Your task to perform on an android device: turn off location history Image 0: 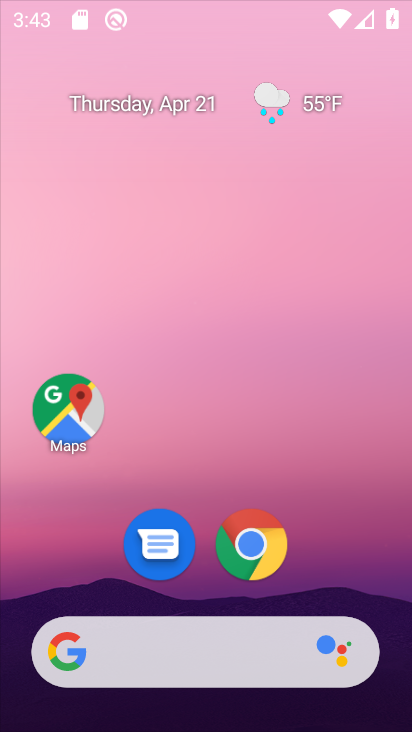
Step 0: drag from (211, 586) to (221, 100)
Your task to perform on an android device: turn off location history Image 1: 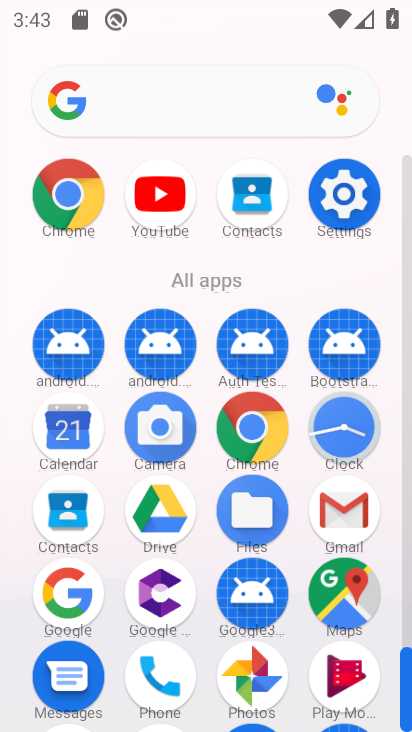
Step 1: click (324, 219)
Your task to perform on an android device: turn off location history Image 2: 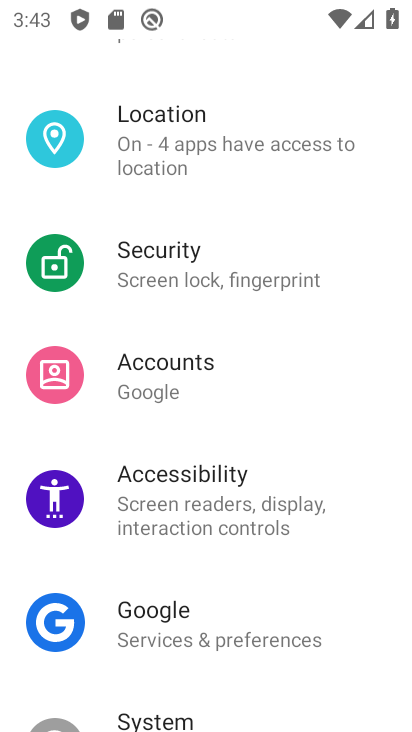
Step 2: drag from (242, 555) to (224, 39)
Your task to perform on an android device: turn off location history Image 3: 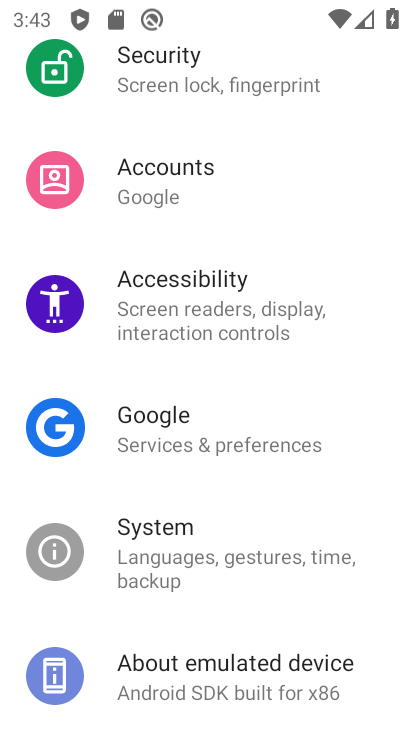
Step 3: drag from (201, 191) to (206, 600)
Your task to perform on an android device: turn off location history Image 4: 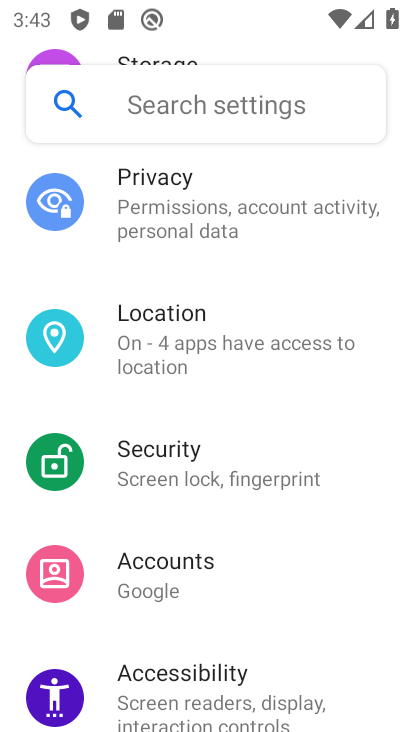
Step 4: click (179, 353)
Your task to perform on an android device: turn off location history Image 5: 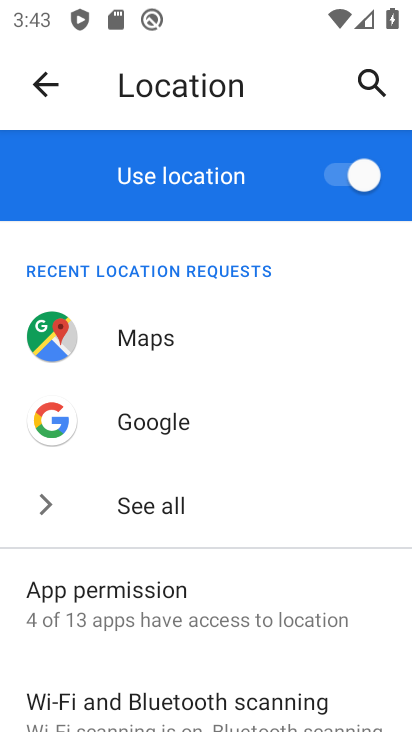
Step 5: drag from (166, 628) to (178, 204)
Your task to perform on an android device: turn off location history Image 6: 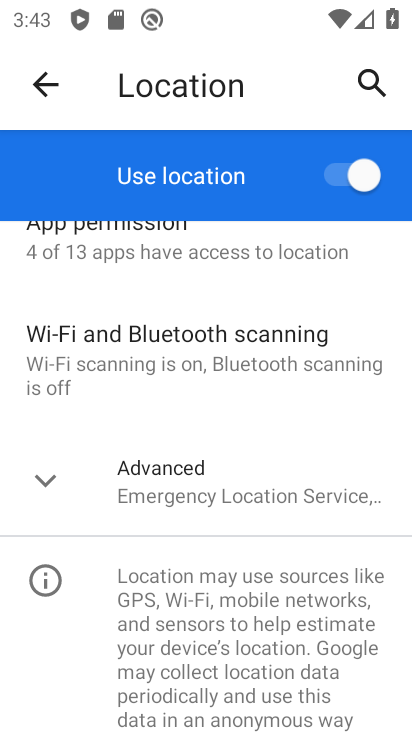
Step 6: click (152, 475)
Your task to perform on an android device: turn off location history Image 7: 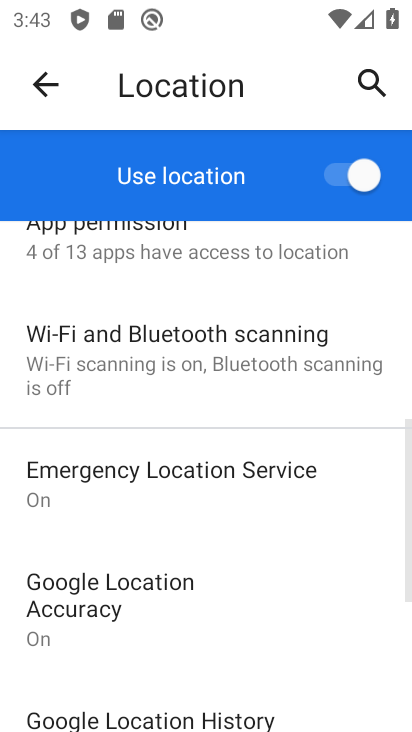
Step 7: drag from (223, 578) to (204, 350)
Your task to perform on an android device: turn off location history Image 8: 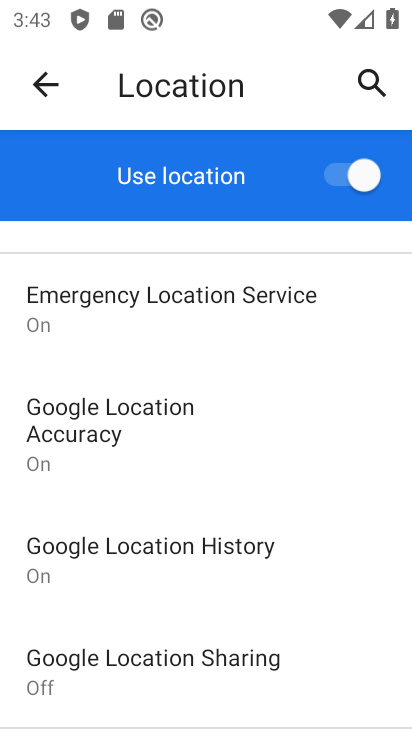
Step 8: click (166, 543)
Your task to perform on an android device: turn off location history Image 9: 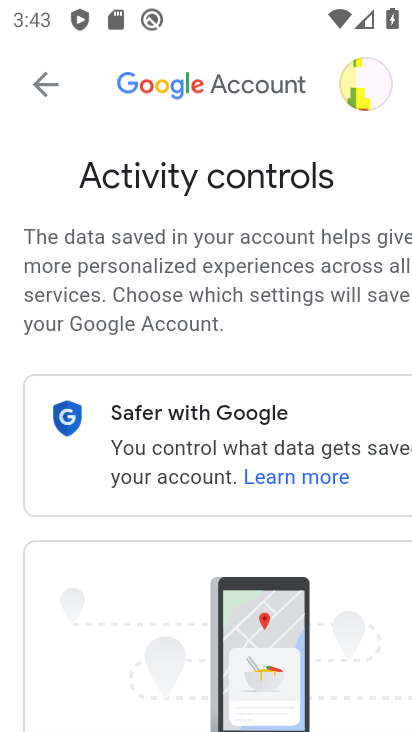
Step 9: drag from (179, 523) to (153, 223)
Your task to perform on an android device: turn off location history Image 10: 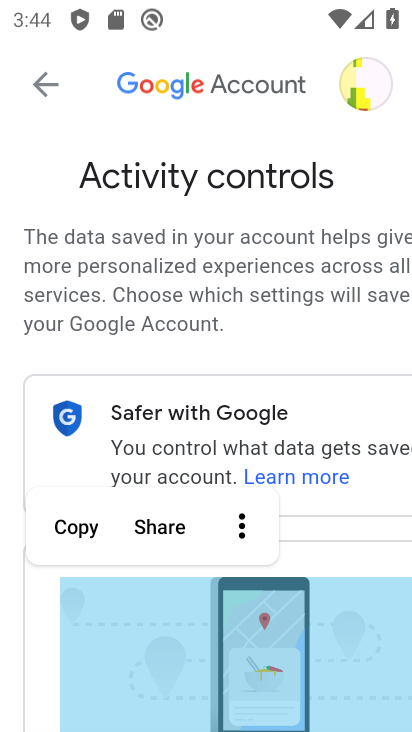
Step 10: drag from (332, 542) to (262, 46)
Your task to perform on an android device: turn off location history Image 11: 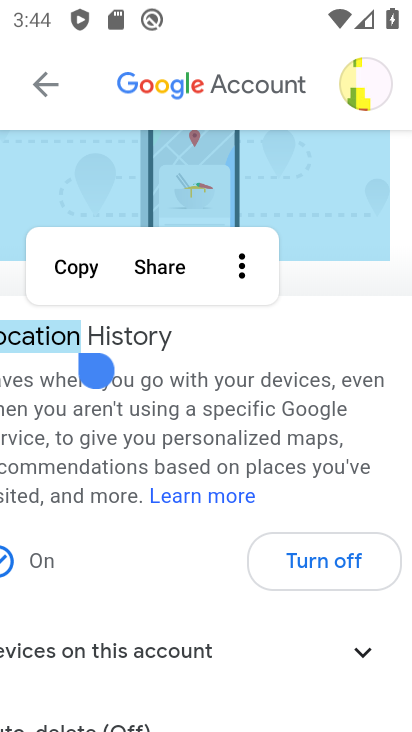
Step 11: click (329, 562)
Your task to perform on an android device: turn off location history Image 12: 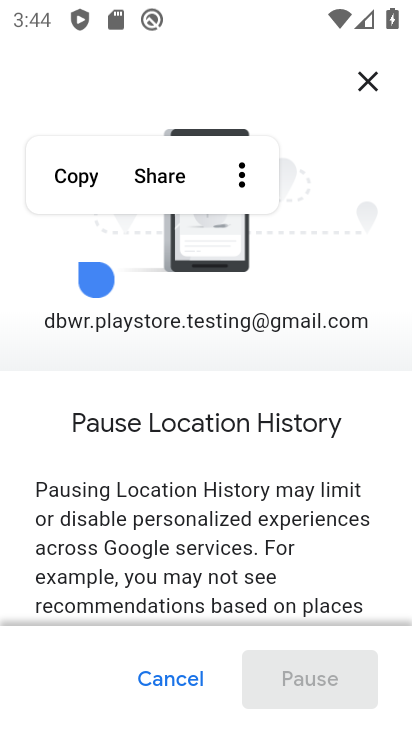
Step 12: drag from (320, 554) to (298, 49)
Your task to perform on an android device: turn off location history Image 13: 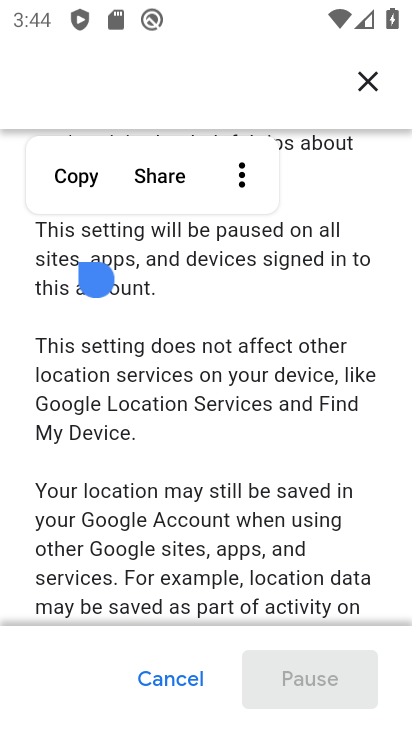
Step 13: drag from (282, 456) to (258, 54)
Your task to perform on an android device: turn off location history Image 14: 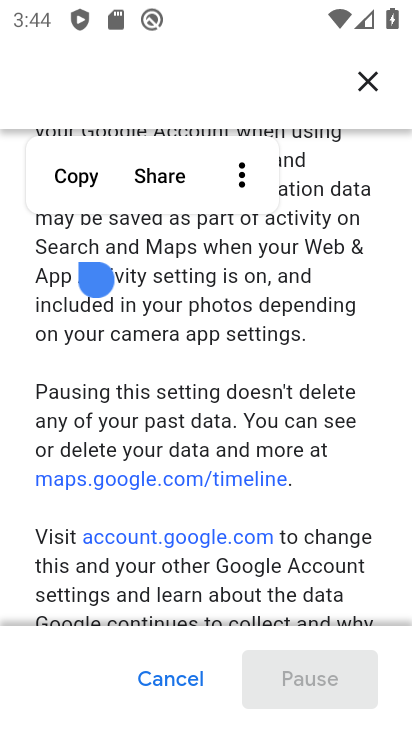
Step 14: drag from (307, 468) to (306, 76)
Your task to perform on an android device: turn off location history Image 15: 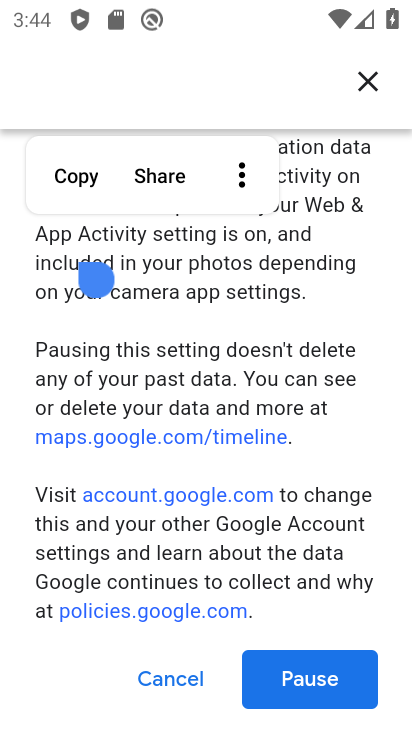
Step 15: click (338, 696)
Your task to perform on an android device: turn off location history Image 16: 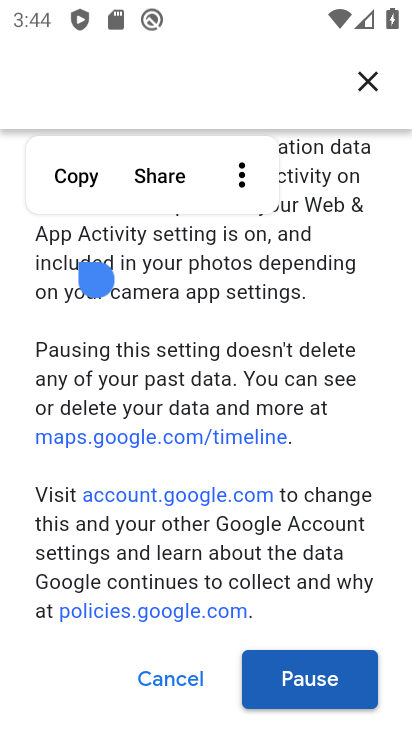
Step 16: click (307, 692)
Your task to perform on an android device: turn off location history Image 17: 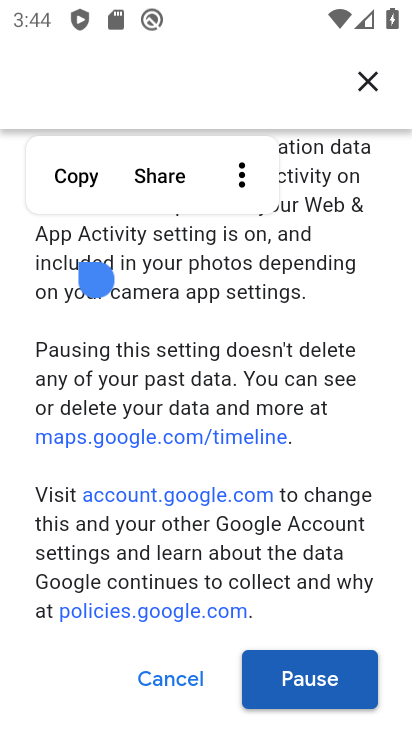
Step 17: task complete